Your task to perform on an android device: turn off notifications in google photos Image 0: 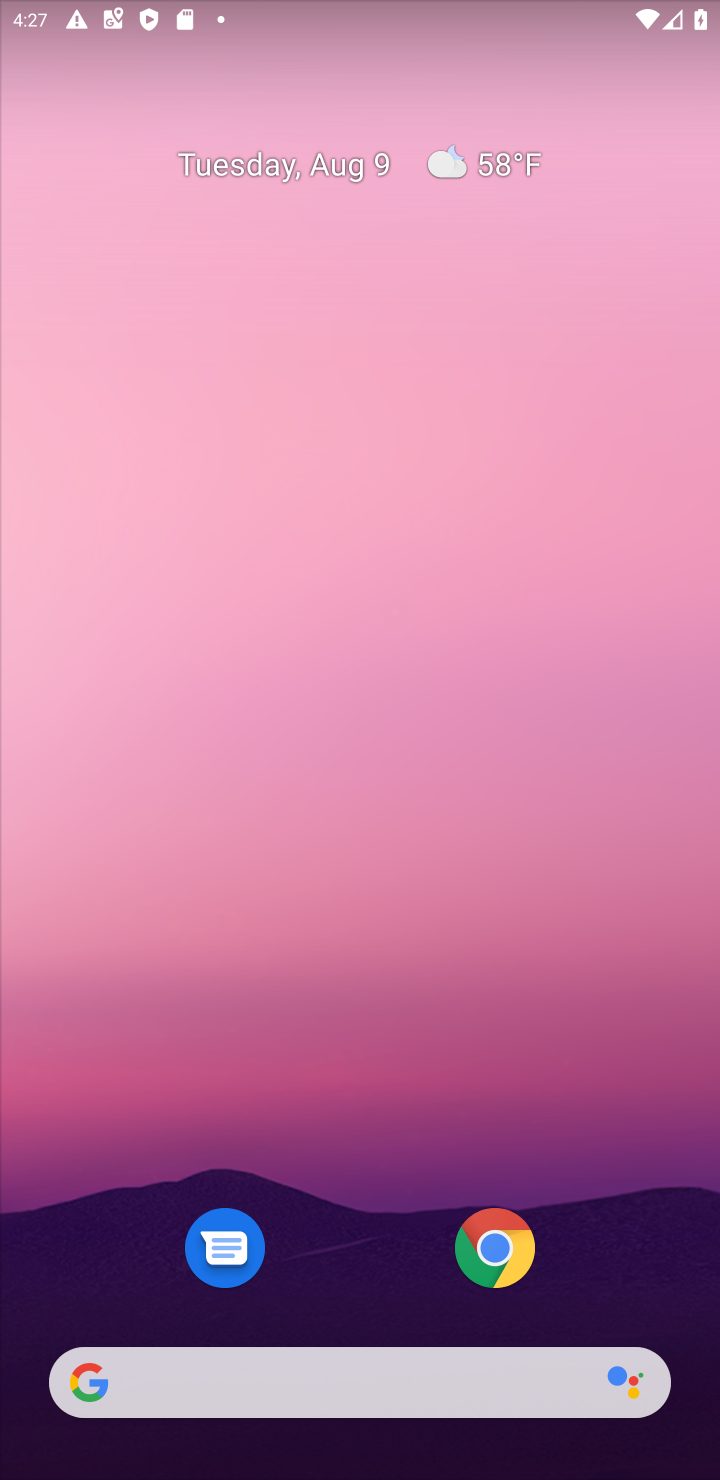
Step 0: drag from (326, 1158) to (60, 434)
Your task to perform on an android device: turn off notifications in google photos Image 1: 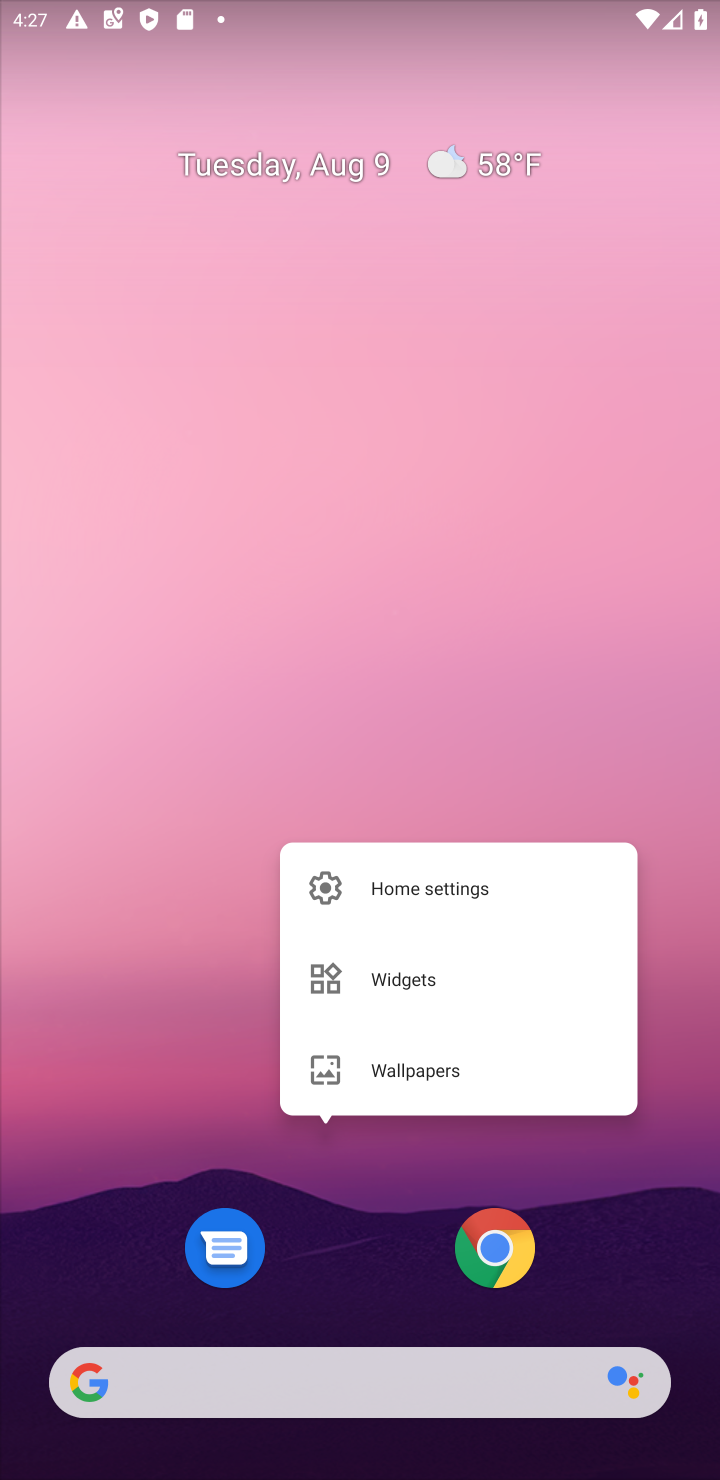
Step 1: click (176, 579)
Your task to perform on an android device: turn off notifications in google photos Image 2: 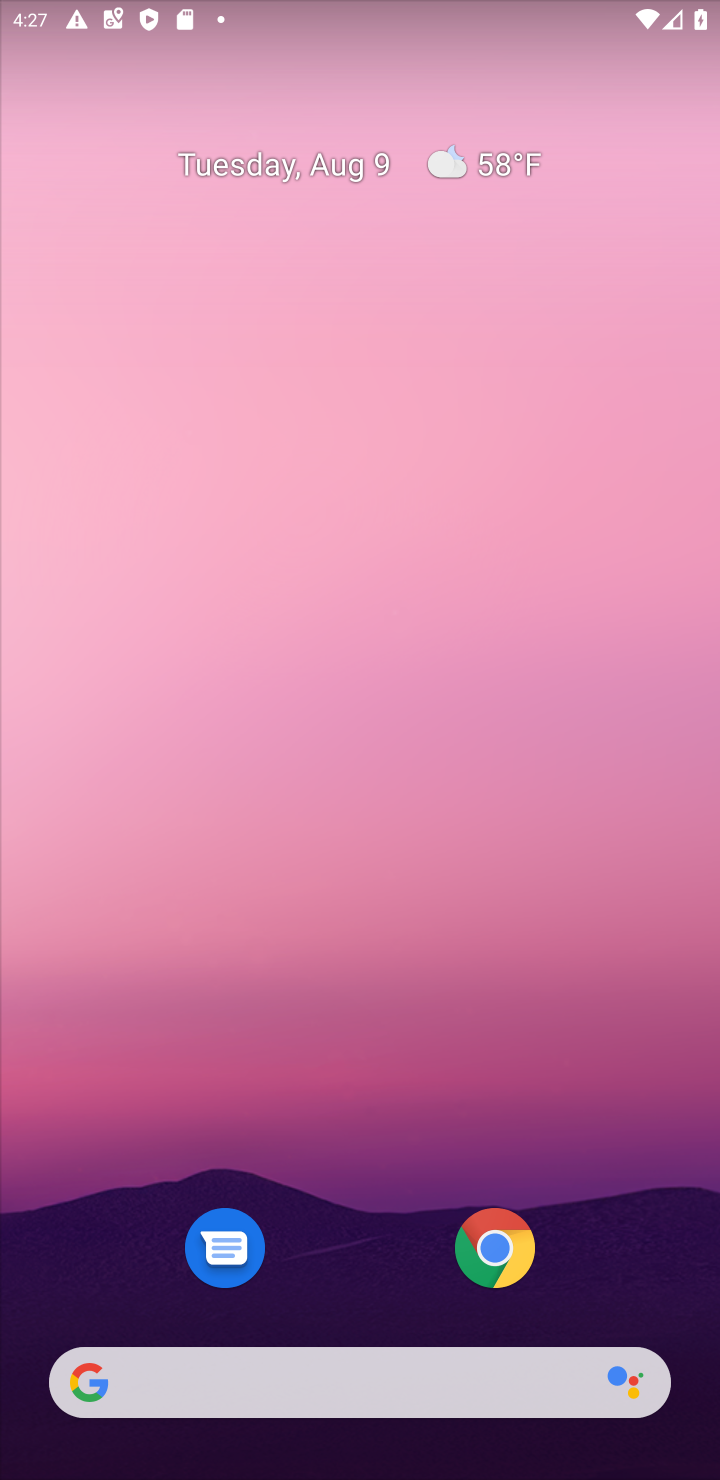
Step 2: drag from (354, 1191) to (116, 327)
Your task to perform on an android device: turn off notifications in google photos Image 3: 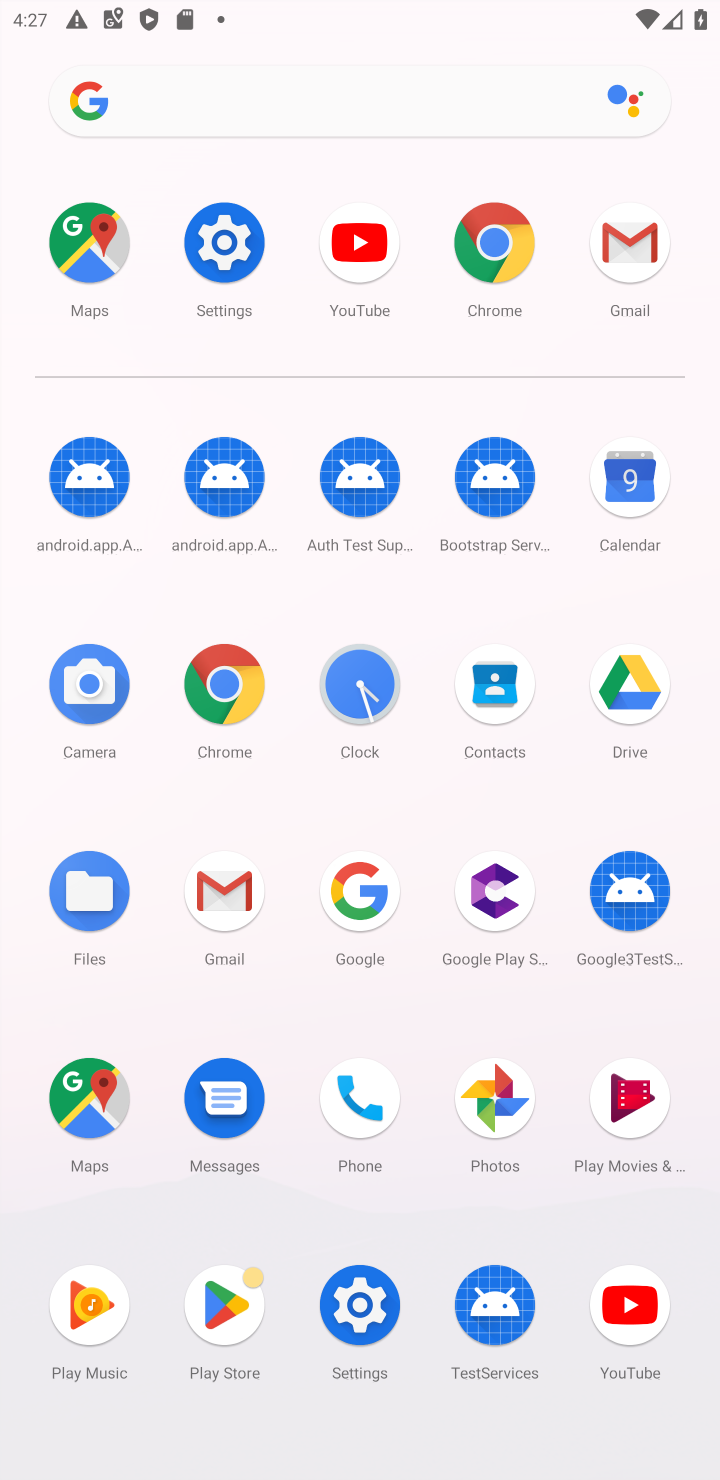
Step 3: click (506, 1092)
Your task to perform on an android device: turn off notifications in google photos Image 4: 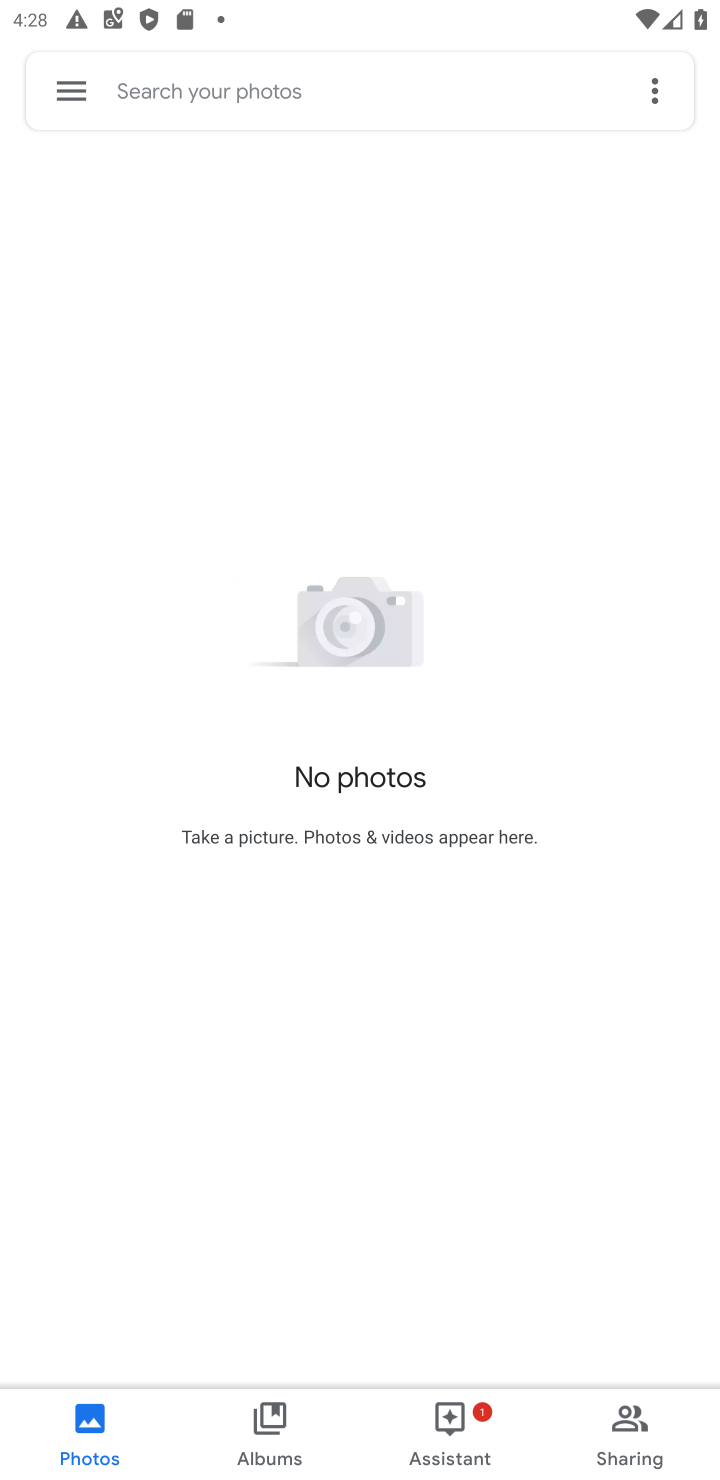
Step 4: click (75, 90)
Your task to perform on an android device: turn off notifications in google photos Image 5: 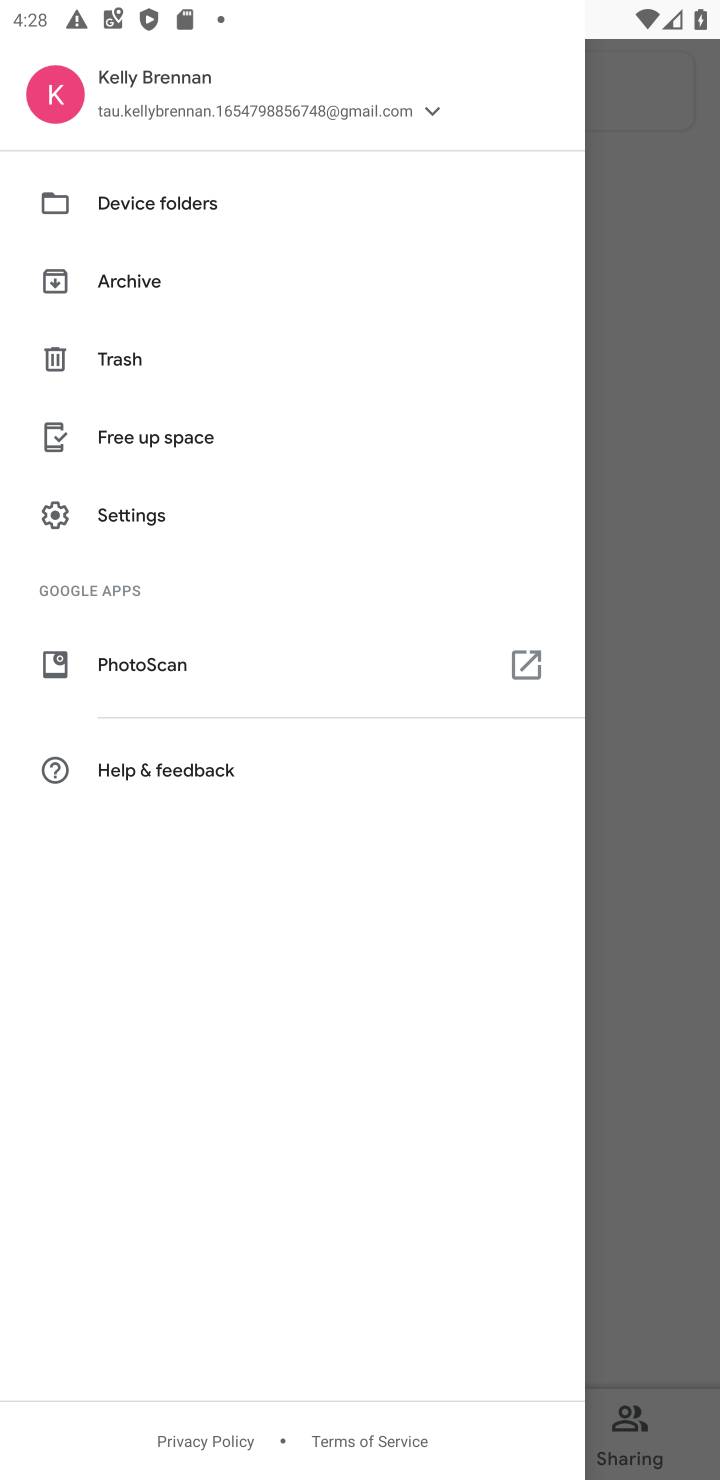
Step 5: click (140, 504)
Your task to perform on an android device: turn off notifications in google photos Image 6: 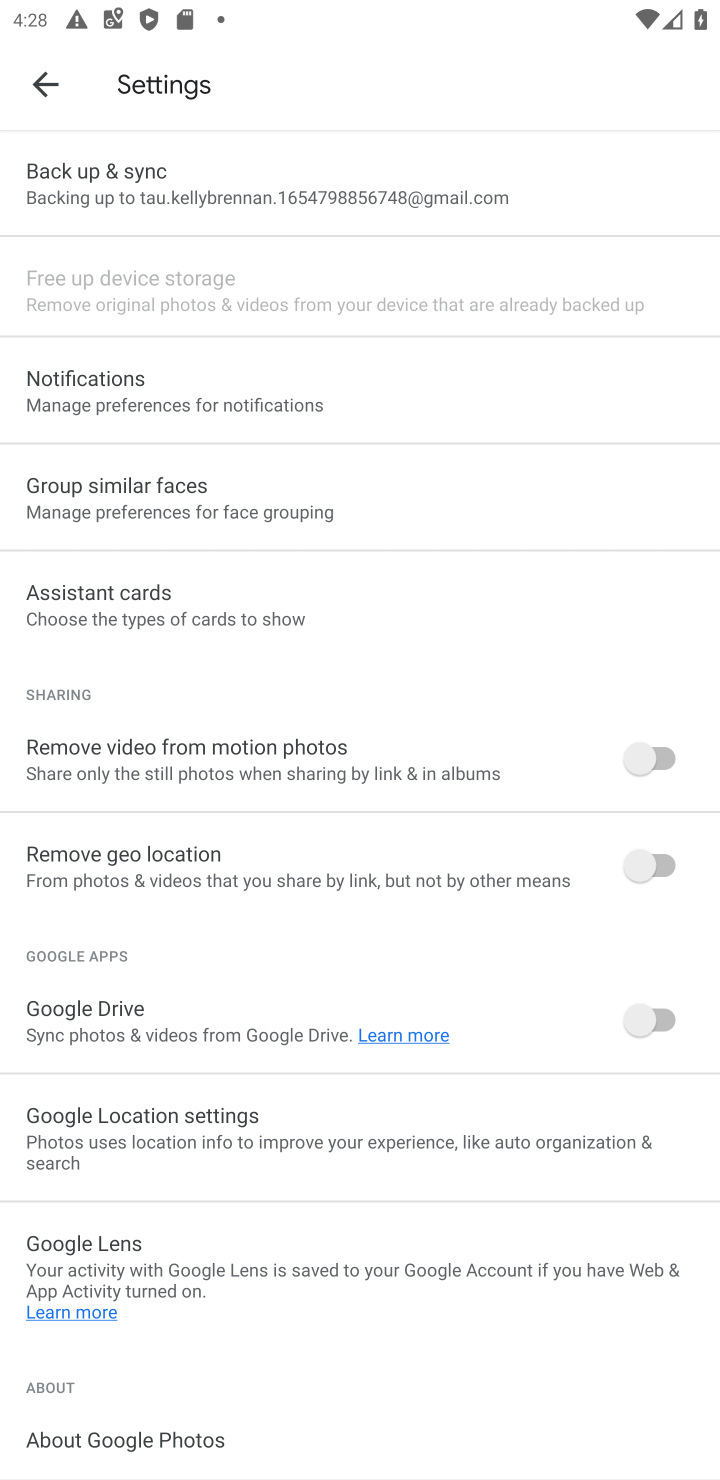
Step 6: click (169, 391)
Your task to perform on an android device: turn off notifications in google photos Image 7: 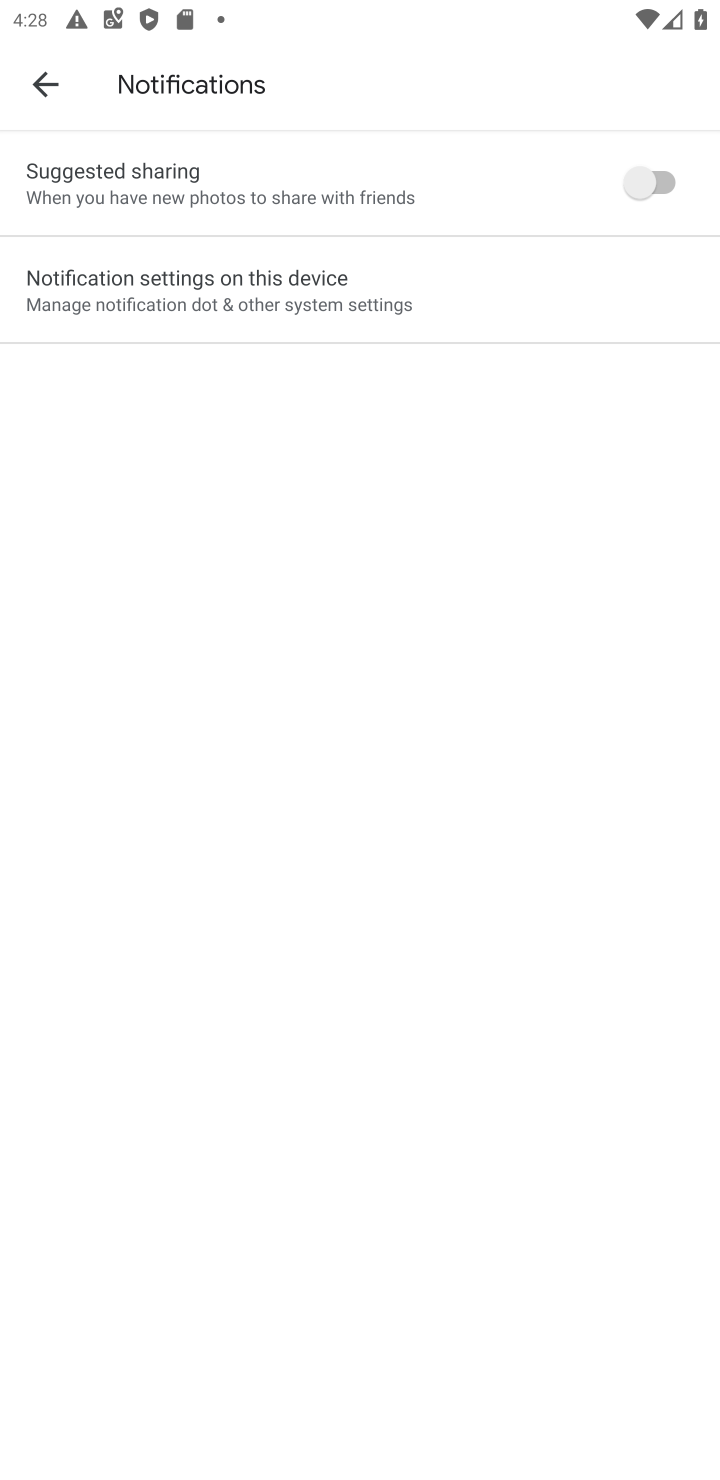
Step 7: click (354, 272)
Your task to perform on an android device: turn off notifications in google photos Image 8: 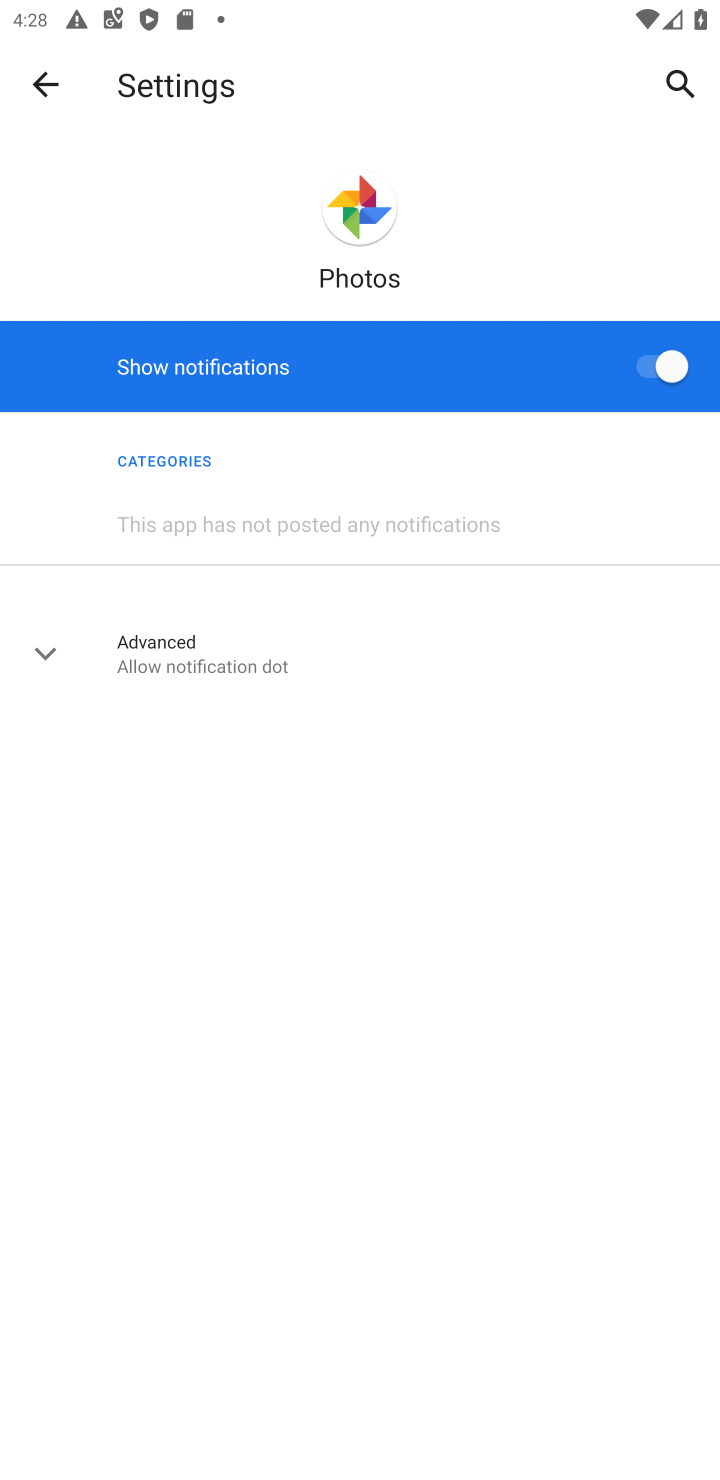
Step 8: click (680, 370)
Your task to perform on an android device: turn off notifications in google photos Image 9: 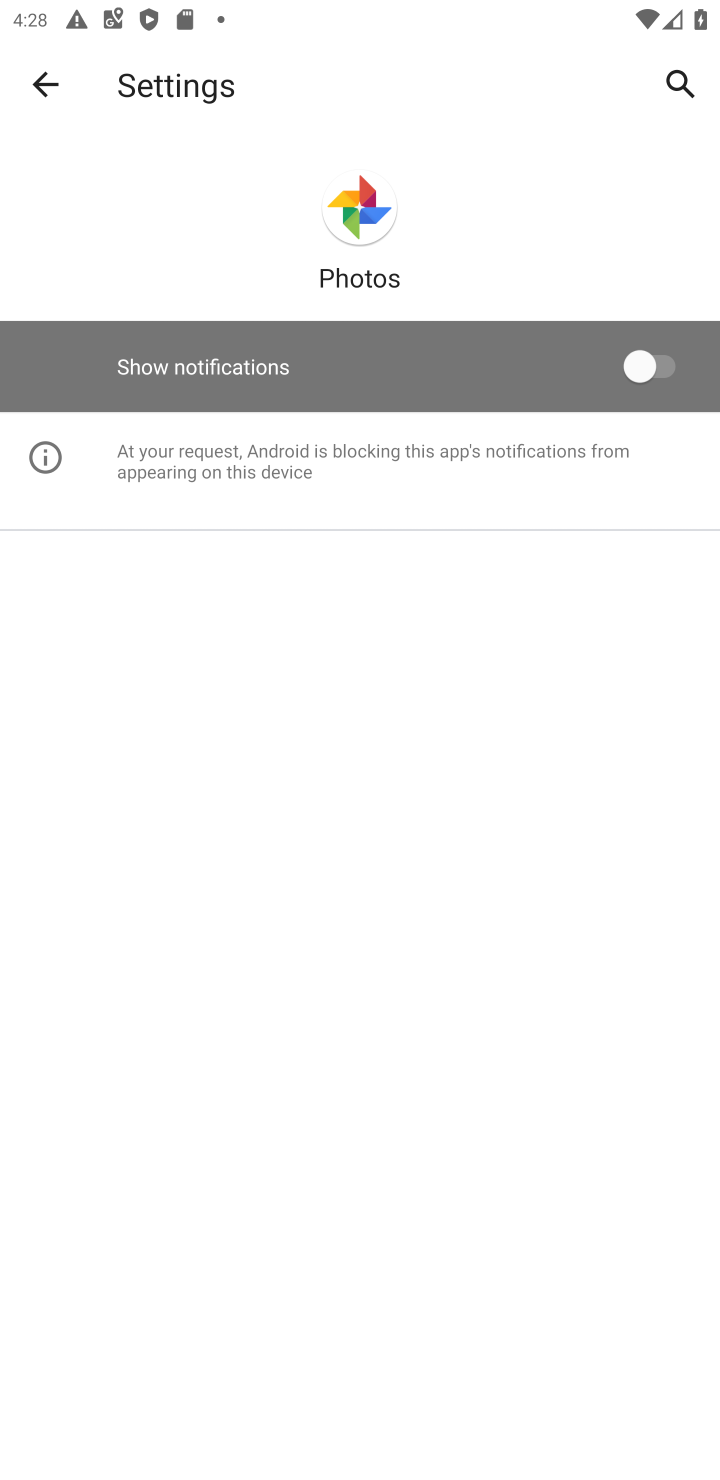
Step 9: task complete